Your task to perform on an android device: turn on notifications settings in the gmail app Image 0: 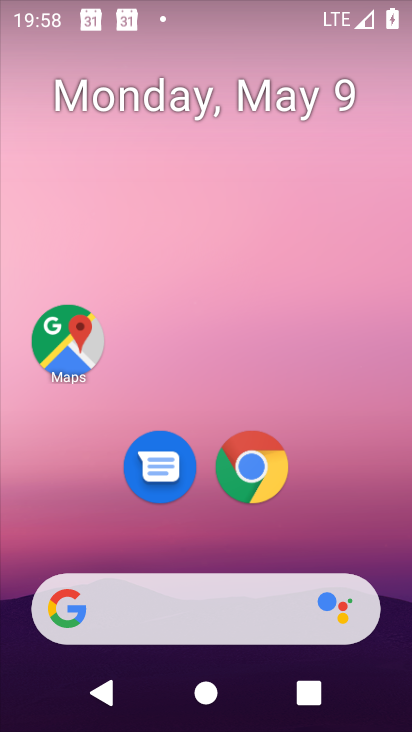
Step 0: drag from (358, 489) to (216, 64)
Your task to perform on an android device: turn on notifications settings in the gmail app Image 1: 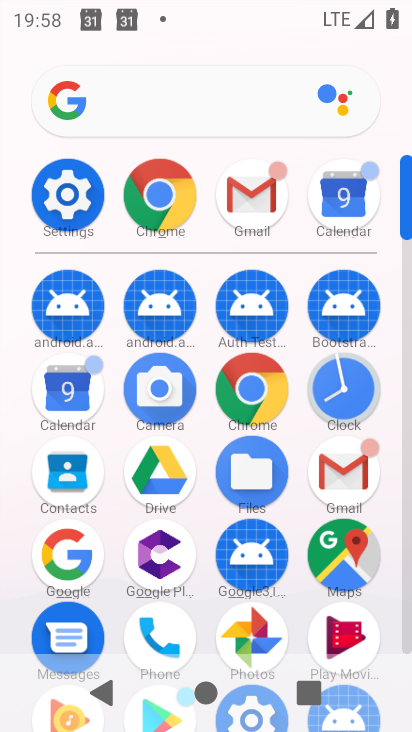
Step 1: click (247, 190)
Your task to perform on an android device: turn on notifications settings in the gmail app Image 2: 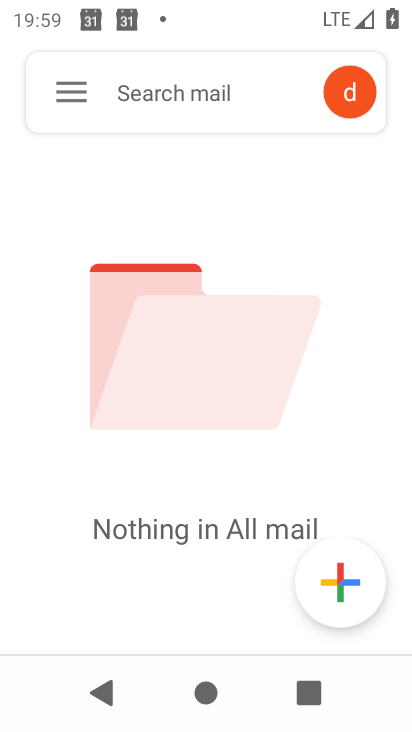
Step 2: click (62, 89)
Your task to perform on an android device: turn on notifications settings in the gmail app Image 3: 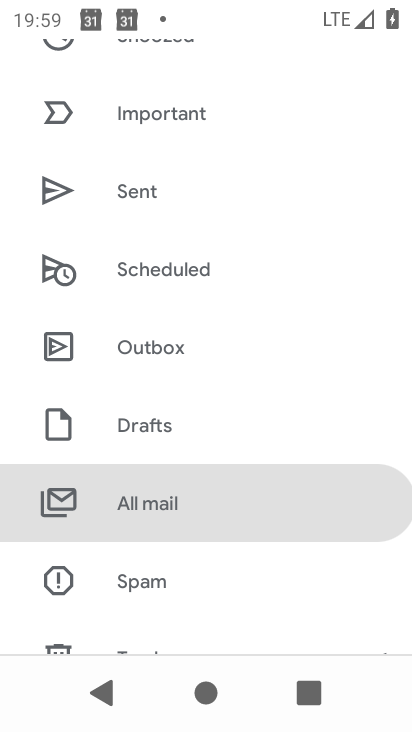
Step 3: drag from (244, 575) to (237, 122)
Your task to perform on an android device: turn on notifications settings in the gmail app Image 4: 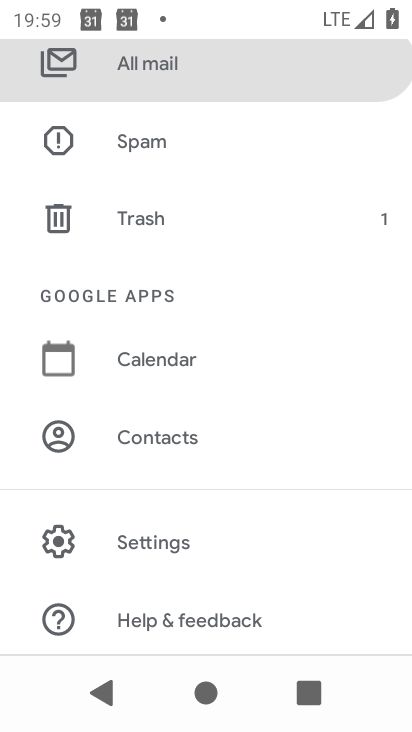
Step 4: click (173, 548)
Your task to perform on an android device: turn on notifications settings in the gmail app Image 5: 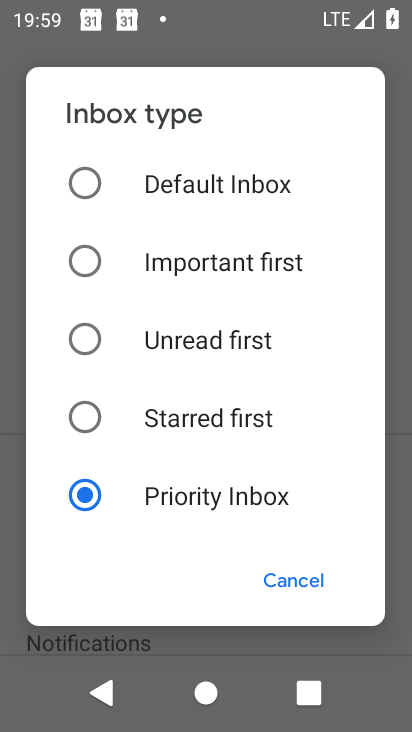
Step 5: click (286, 576)
Your task to perform on an android device: turn on notifications settings in the gmail app Image 6: 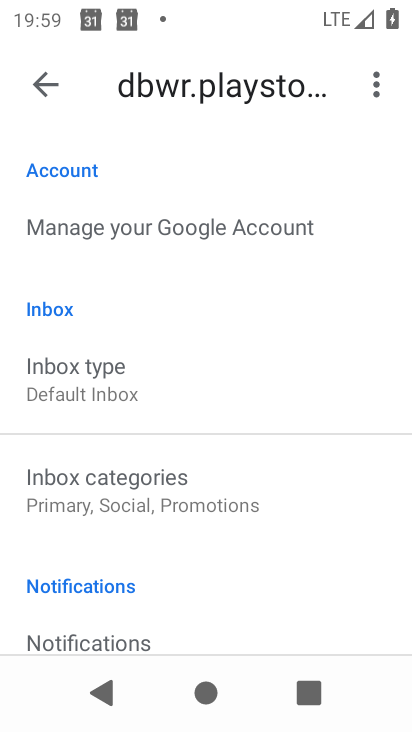
Step 6: drag from (282, 565) to (224, 217)
Your task to perform on an android device: turn on notifications settings in the gmail app Image 7: 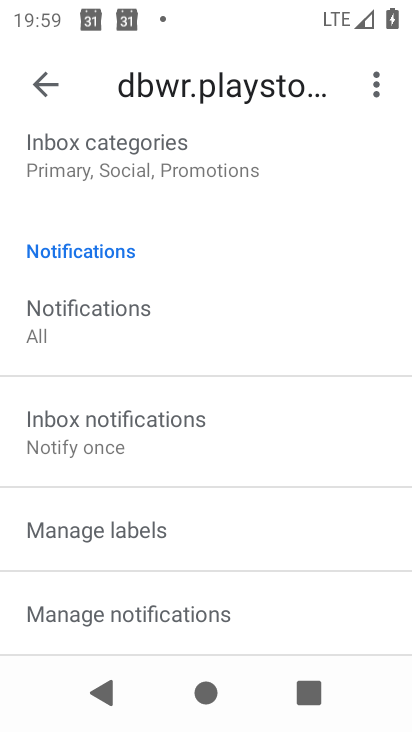
Step 7: click (175, 620)
Your task to perform on an android device: turn on notifications settings in the gmail app Image 8: 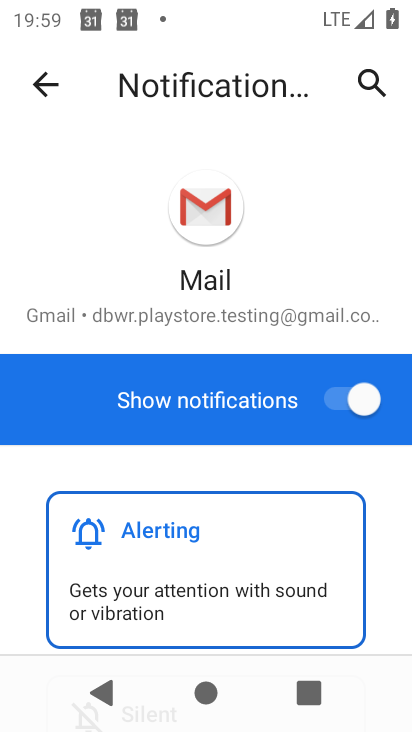
Step 8: task complete